Your task to perform on an android device: Add "usb-c to usb-b" to the cart on walmart.com Image 0: 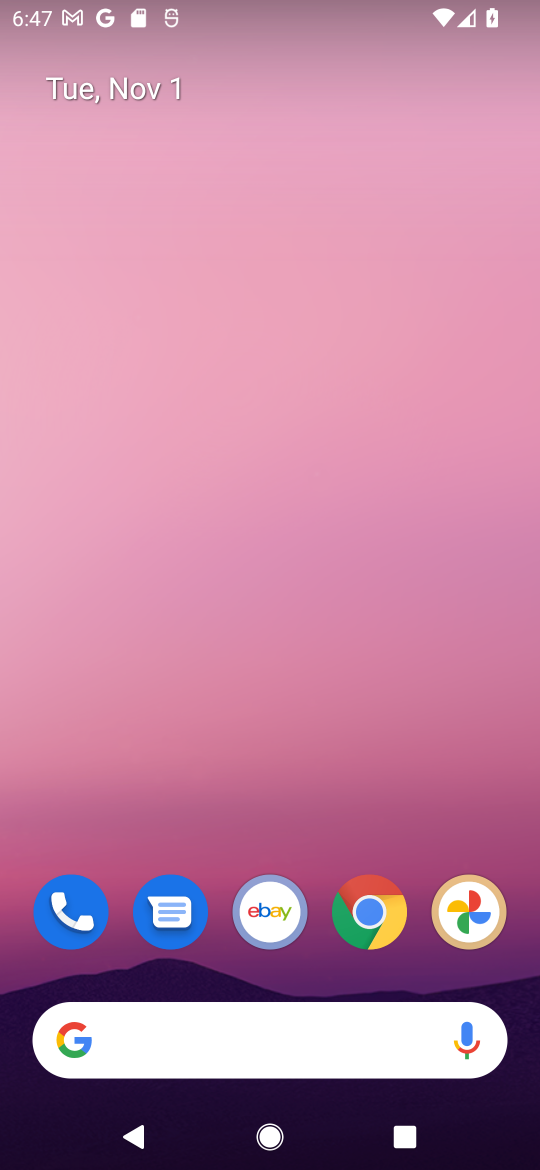
Step 0: click (62, 1044)
Your task to perform on an android device: Add "usb-c to usb-b" to the cart on walmart.com Image 1: 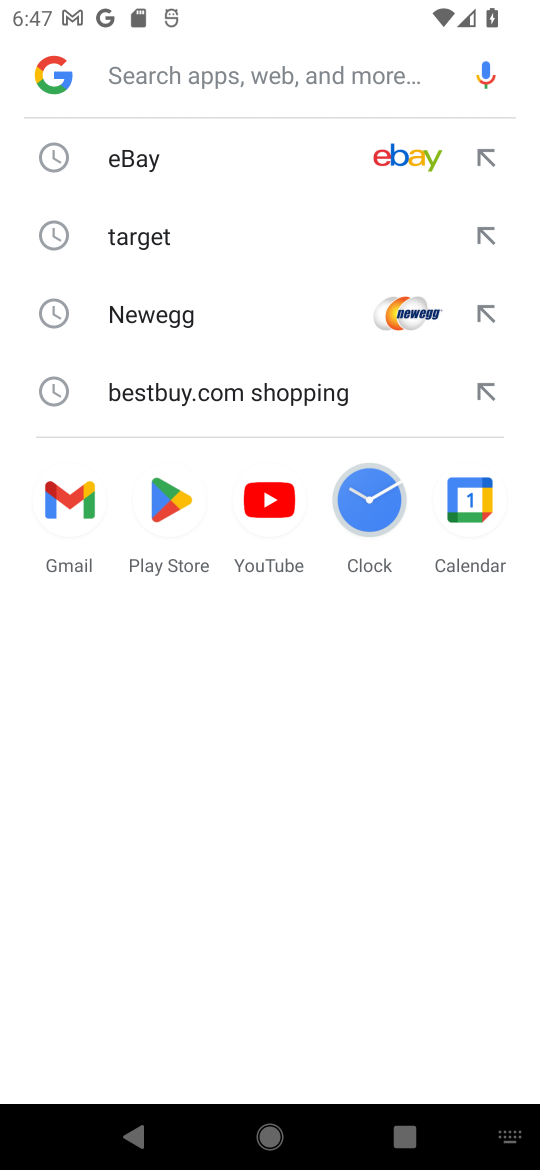
Step 1: type "walmart.com"
Your task to perform on an android device: Add "usb-c to usb-b" to the cart on walmart.com Image 2: 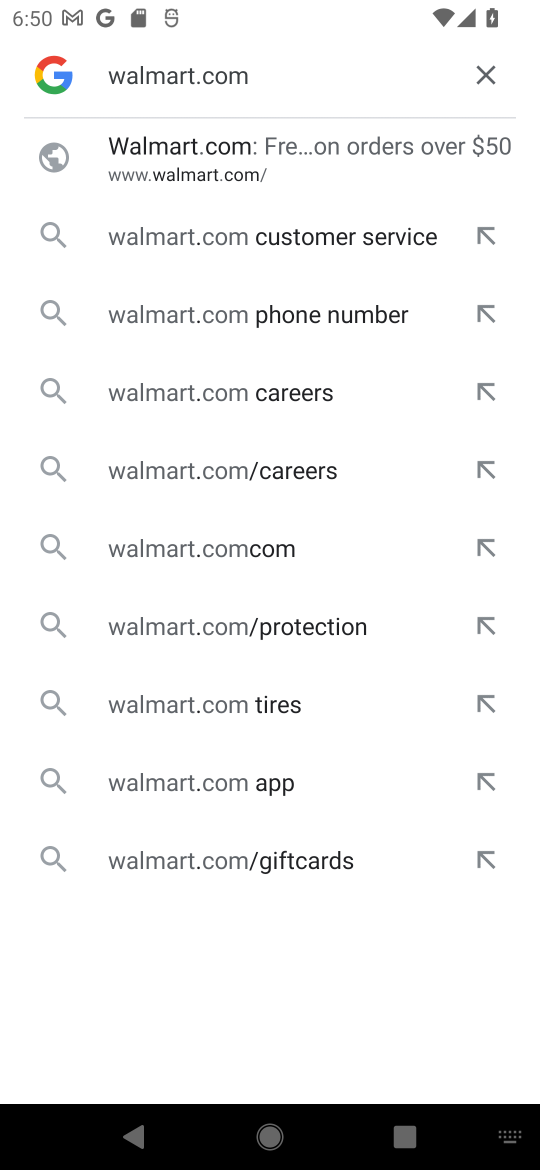
Step 2: click (262, 154)
Your task to perform on an android device: Add "usb-c to usb-b" to the cart on walmart.com Image 3: 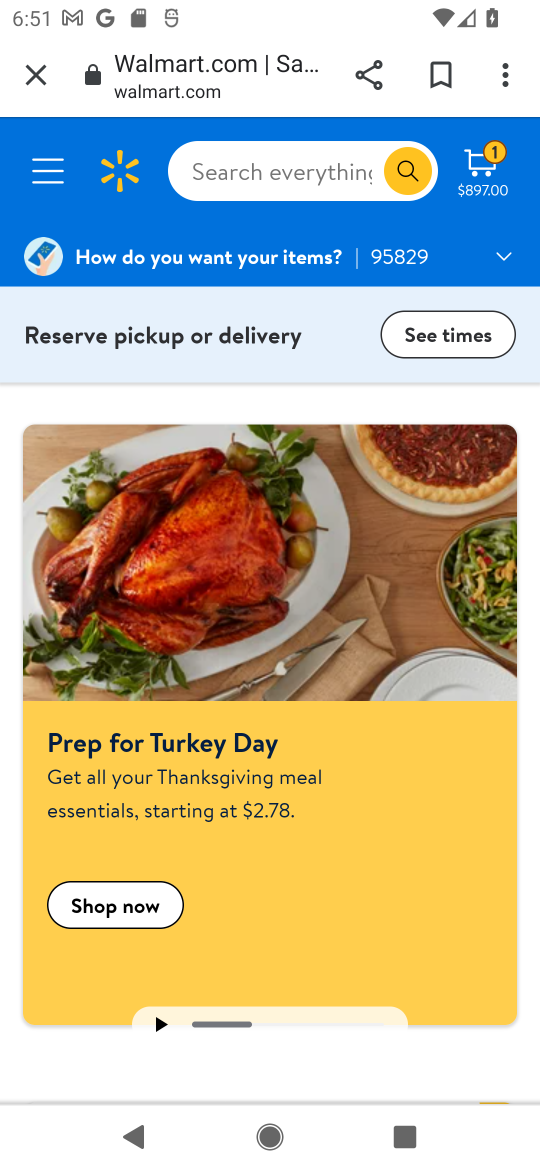
Step 3: click (262, 170)
Your task to perform on an android device: Add "usb-c to usb-b" to the cart on walmart.com Image 4: 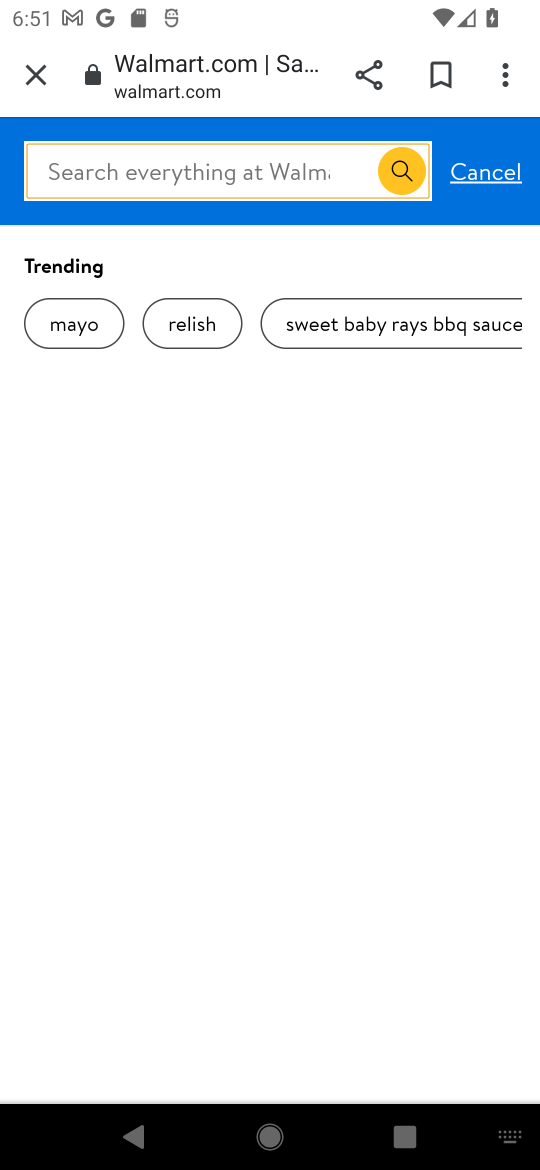
Step 4: type "usb-c to usb-b"
Your task to perform on an android device: Add "usb-c to usb-b" to the cart on walmart.com Image 5: 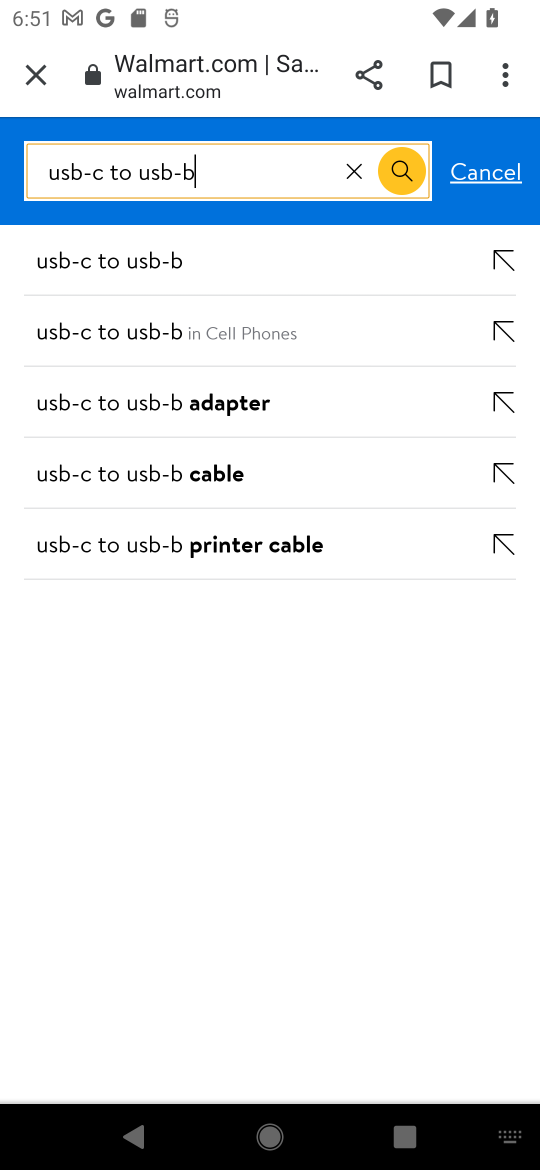
Step 5: click (130, 262)
Your task to perform on an android device: Add "usb-c to usb-b" to the cart on walmart.com Image 6: 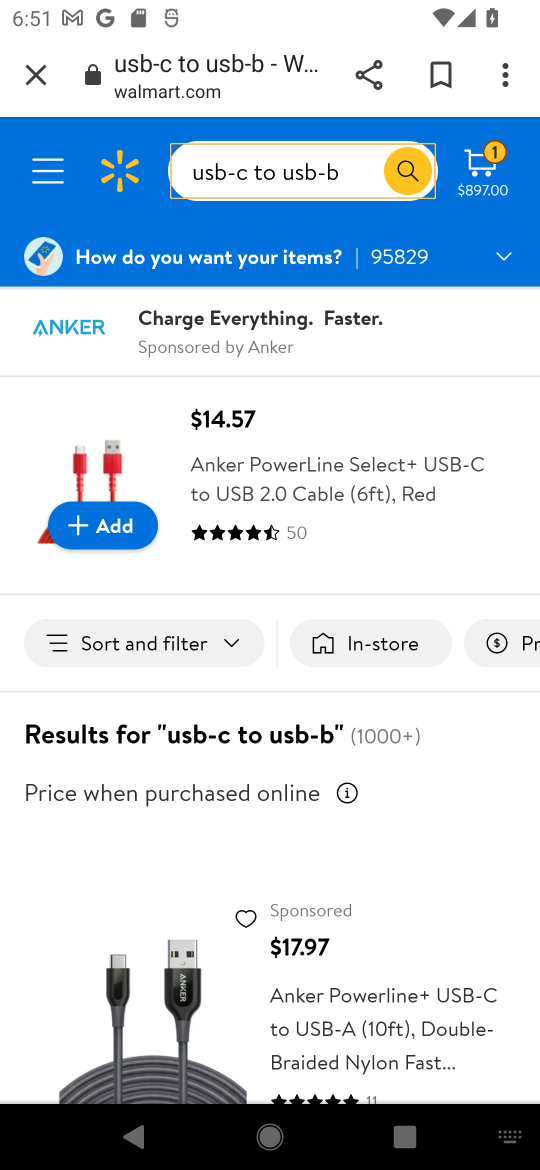
Step 6: drag from (184, 988) to (320, 129)
Your task to perform on an android device: Add "usb-c to usb-b" to the cart on walmart.com Image 7: 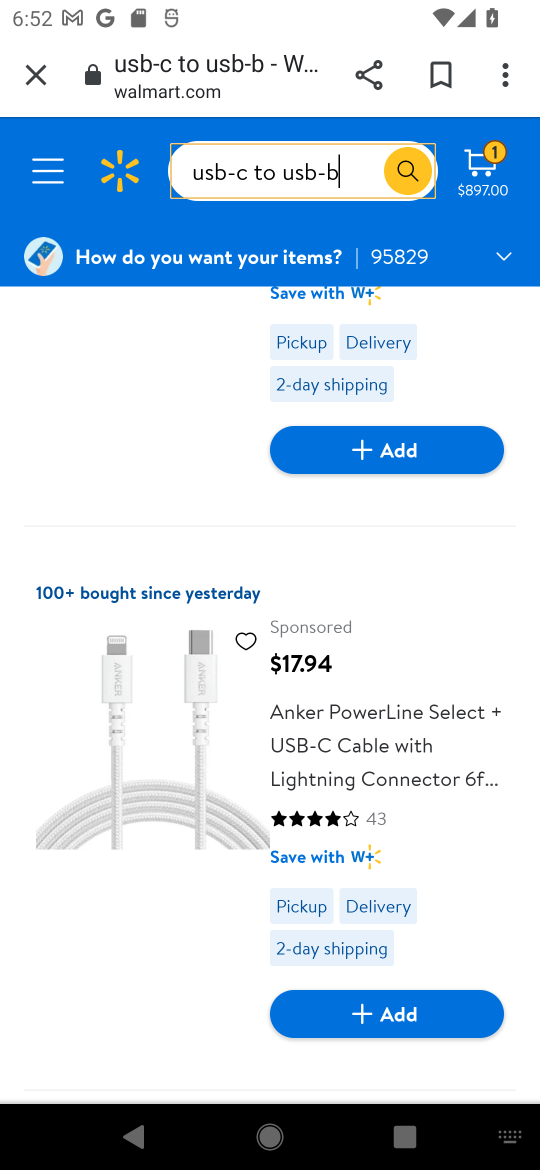
Step 7: click (383, 455)
Your task to perform on an android device: Add "usb-c to usb-b" to the cart on walmart.com Image 8: 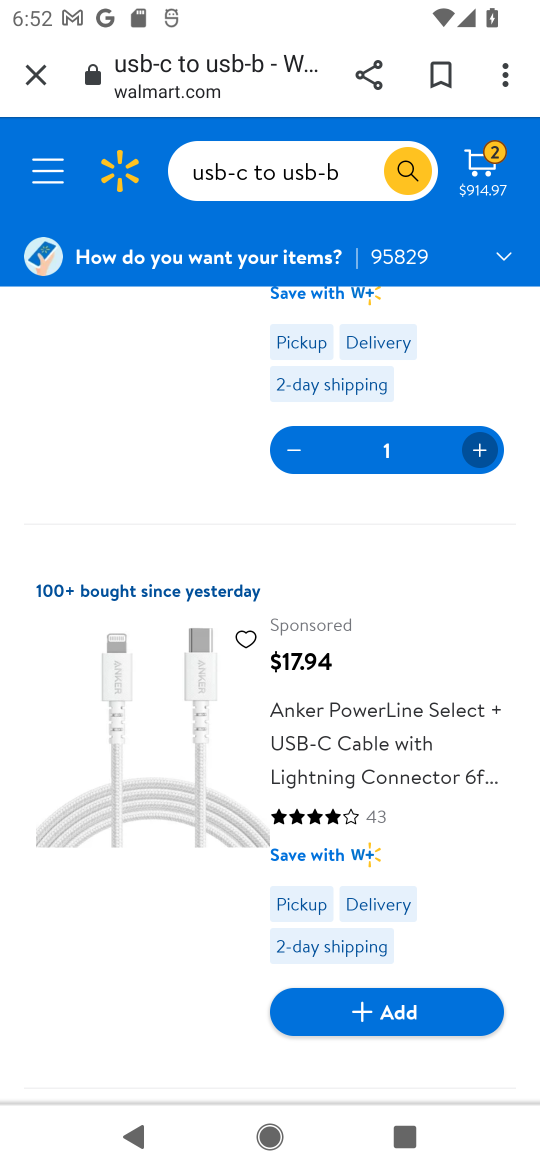
Step 8: task complete